Your task to perform on an android device: What is the speed of a tiger? Image 0: 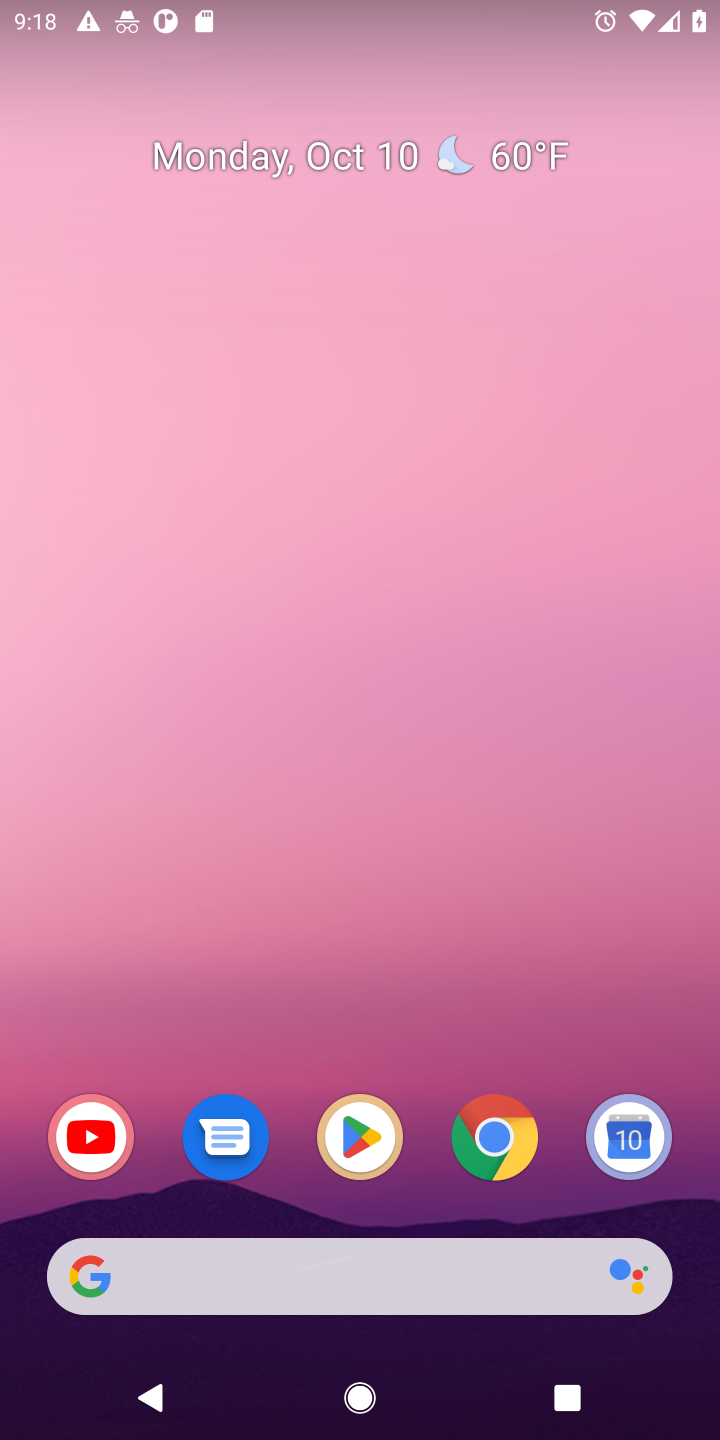
Step 0: press home button
Your task to perform on an android device: What is the speed of a tiger? Image 1: 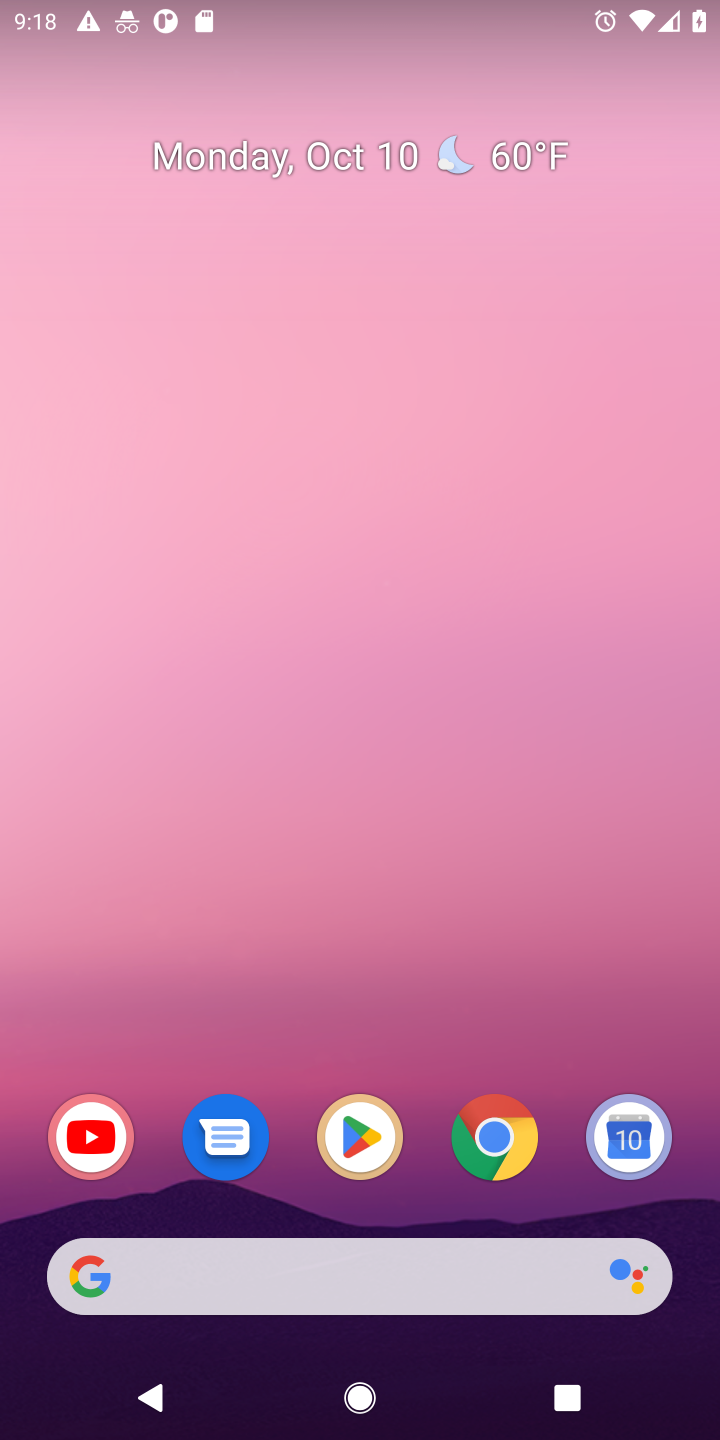
Step 1: click (487, 1130)
Your task to perform on an android device: What is the speed of a tiger? Image 2: 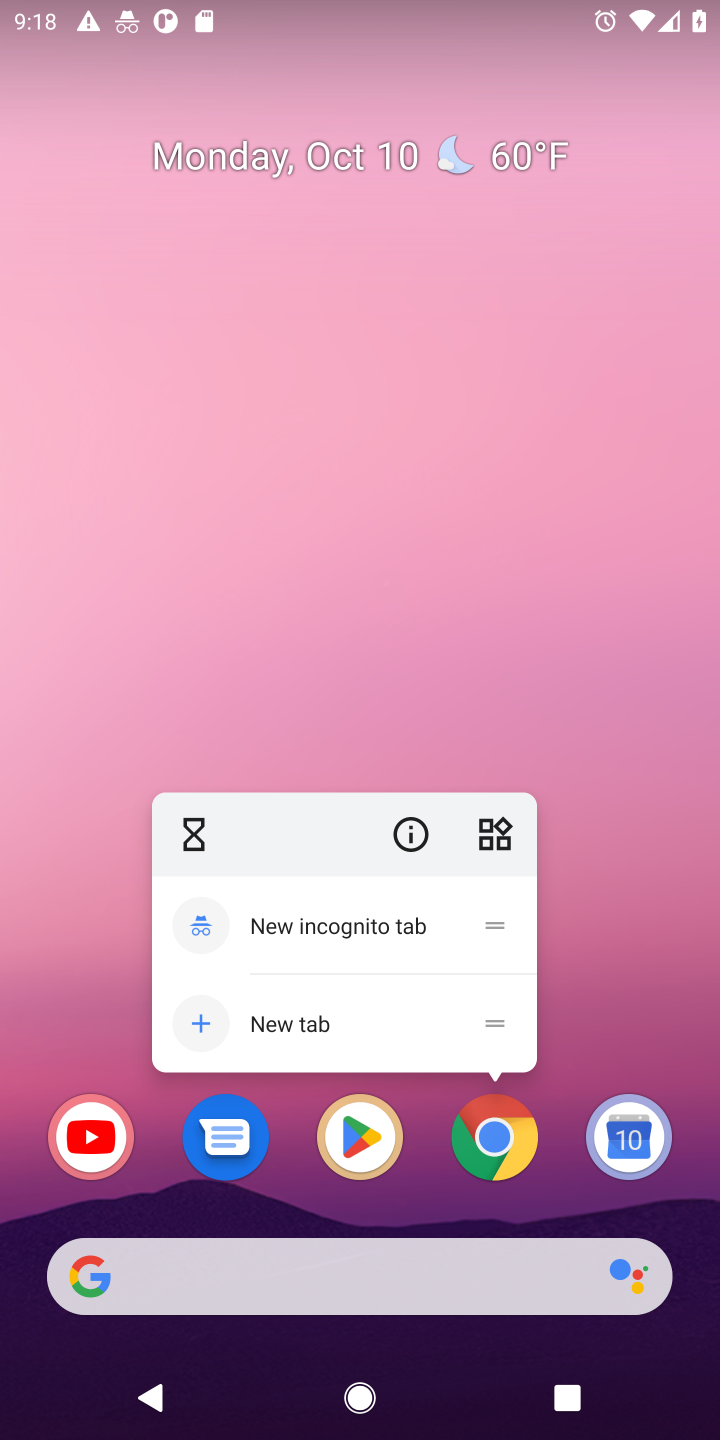
Step 2: click (487, 1130)
Your task to perform on an android device: What is the speed of a tiger? Image 3: 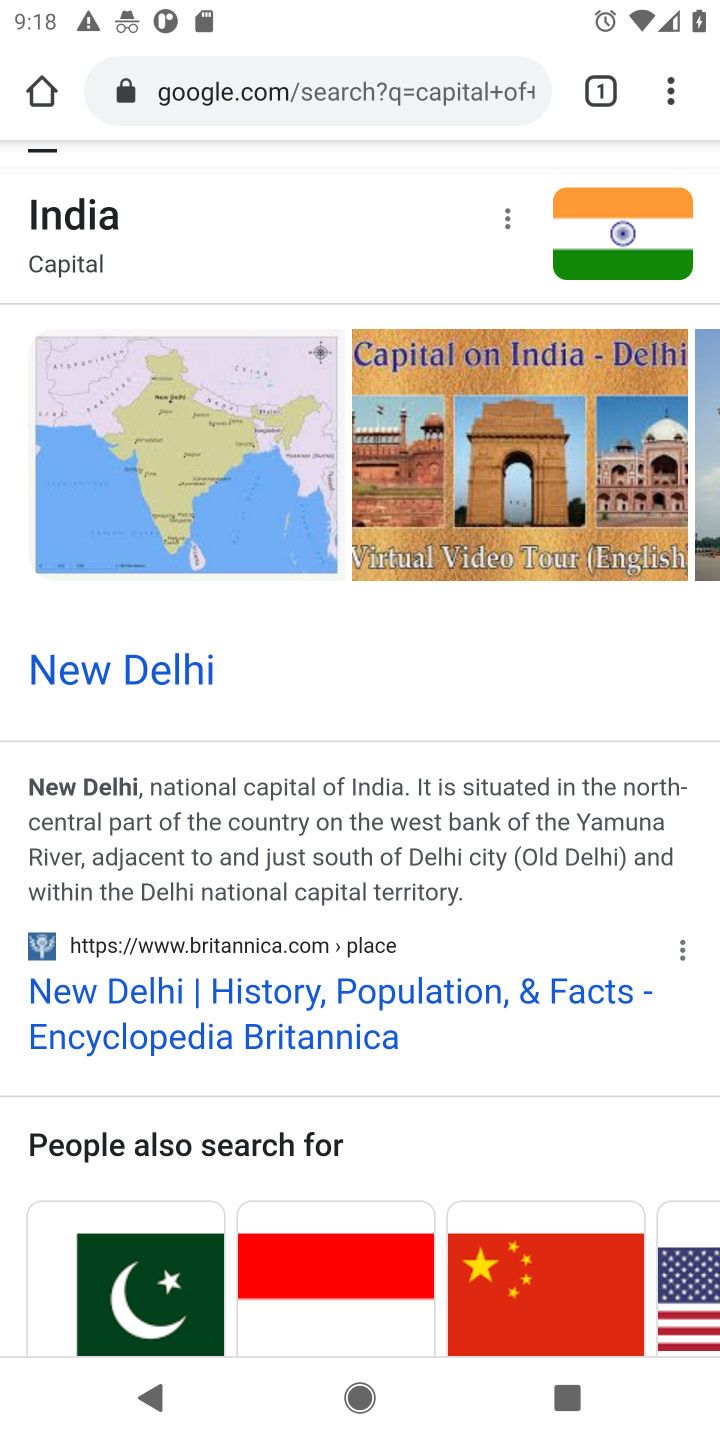
Step 3: click (327, 68)
Your task to perform on an android device: What is the speed of a tiger? Image 4: 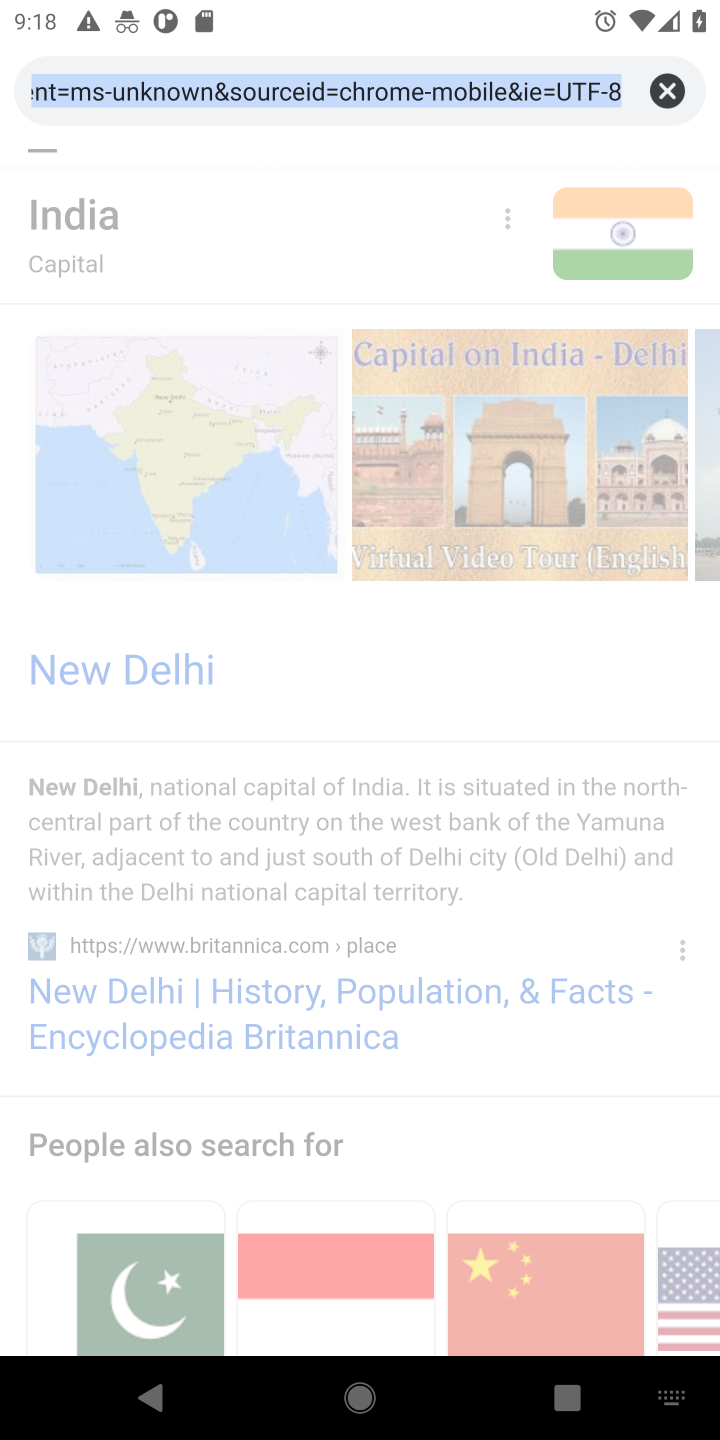
Step 4: click (667, 88)
Your task to perform on an android device: What is the speed of a tiger? Image 5: 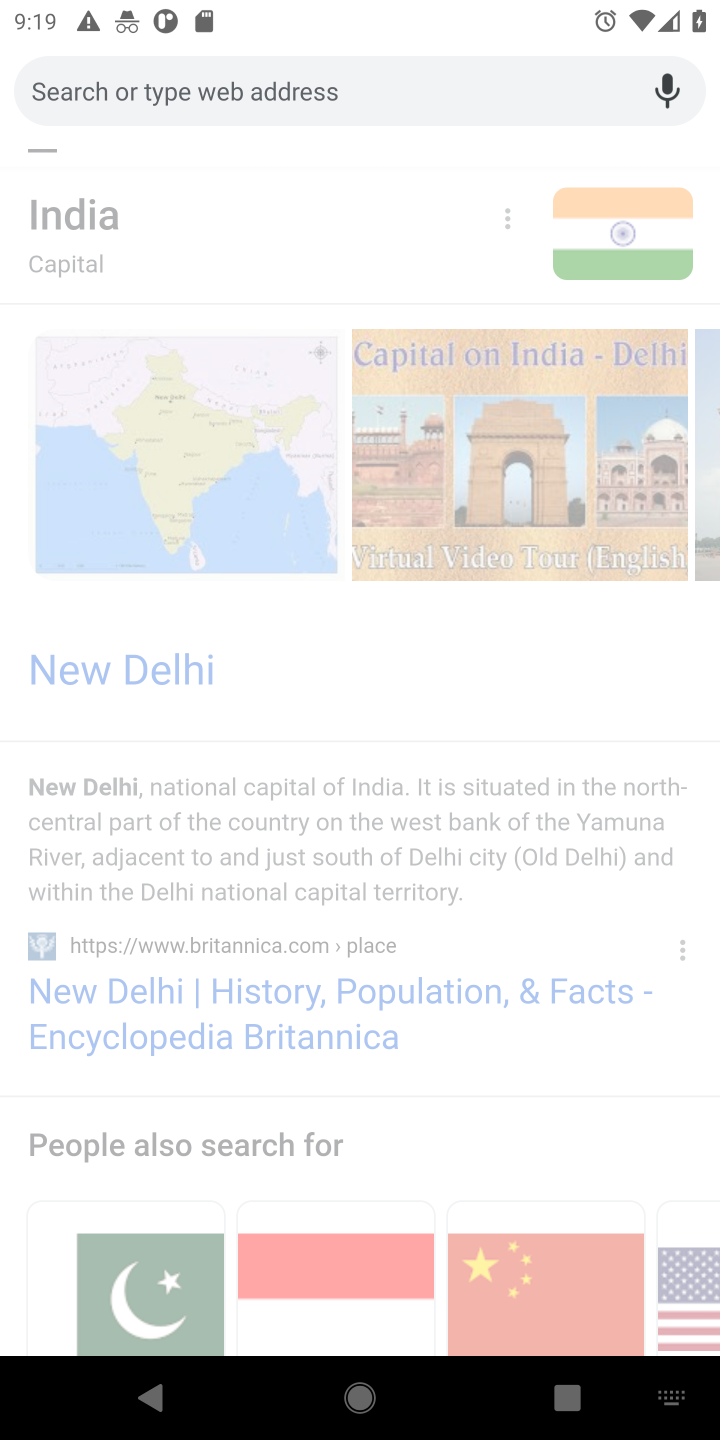
Step 5: type "speed of a tiger?"
Your task to perform on an android device: What is the speed of a tiger? Image 6: 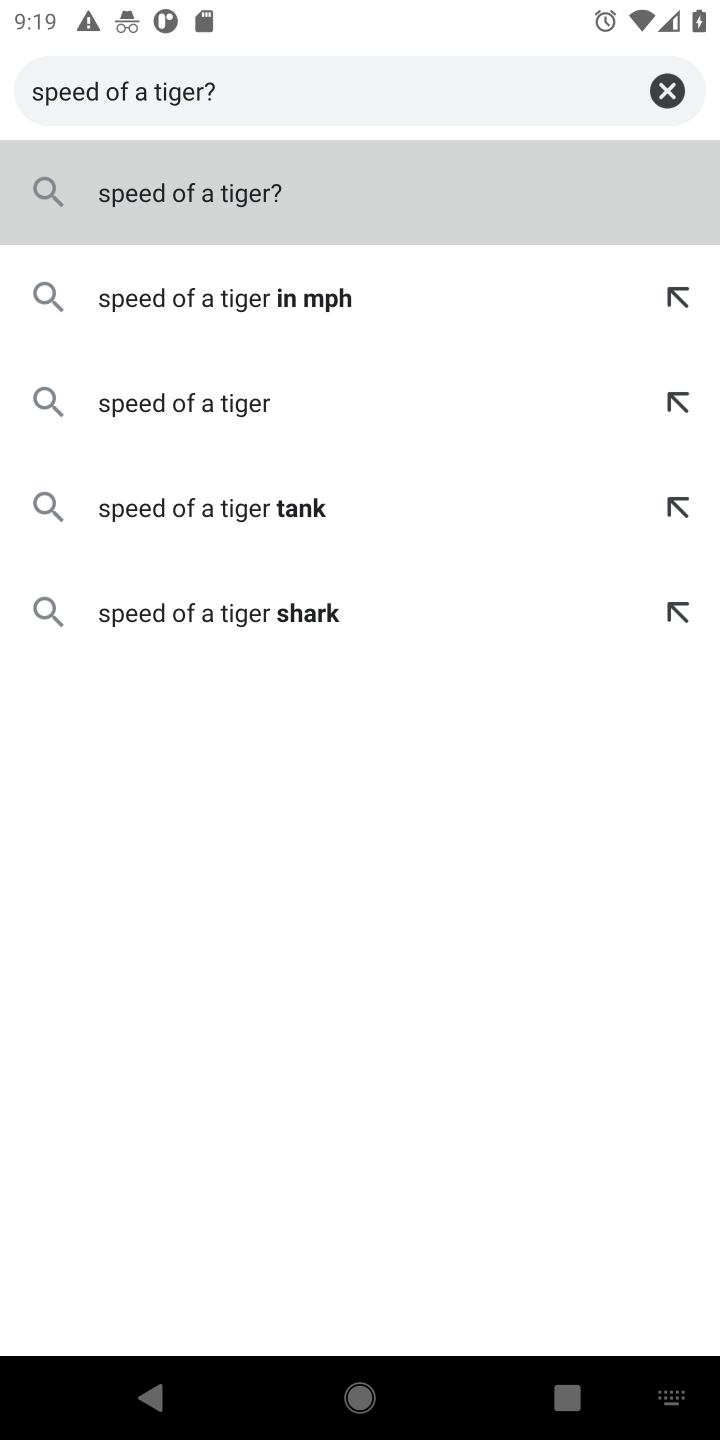
Step 6: click (169, 200)
Your task to perform on an android device: What is the speed of a tiger? Image 7: 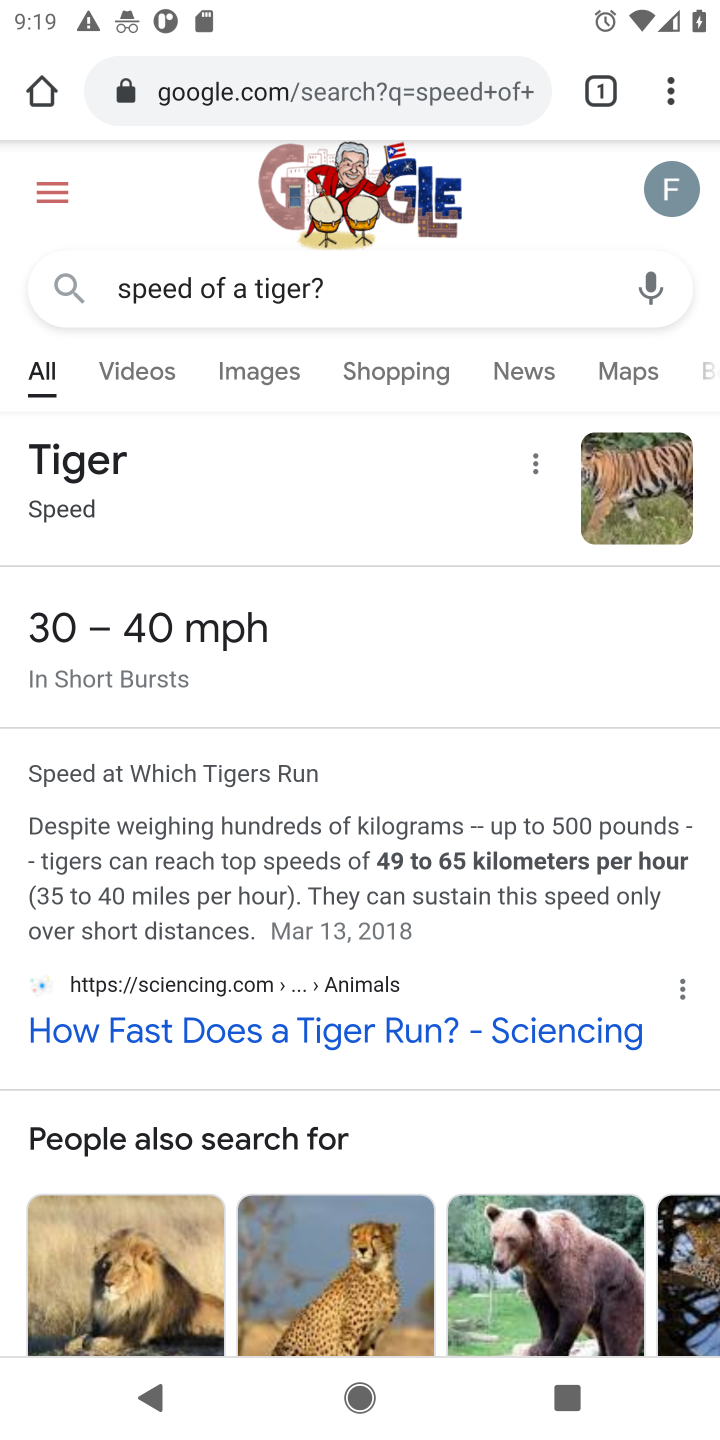
Step 7: task complete